Your task to perform on an android device: stop showing notifications on the lock screen Image 0: 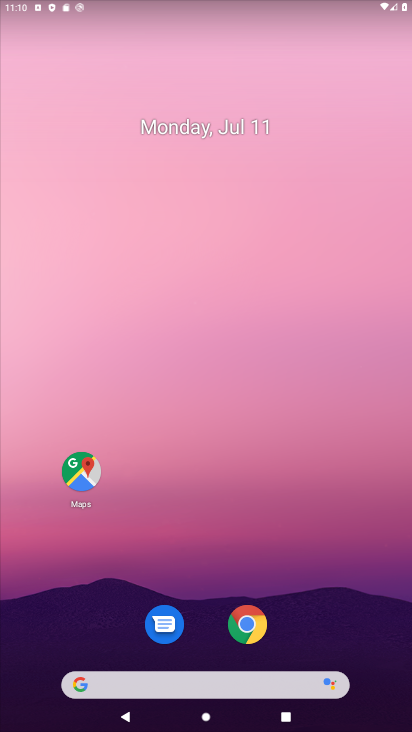
Step 0: drag from (201, 617) to (244, 179)
Your task to perform on an android device: stop showing notifications on the lock screen Image 1: 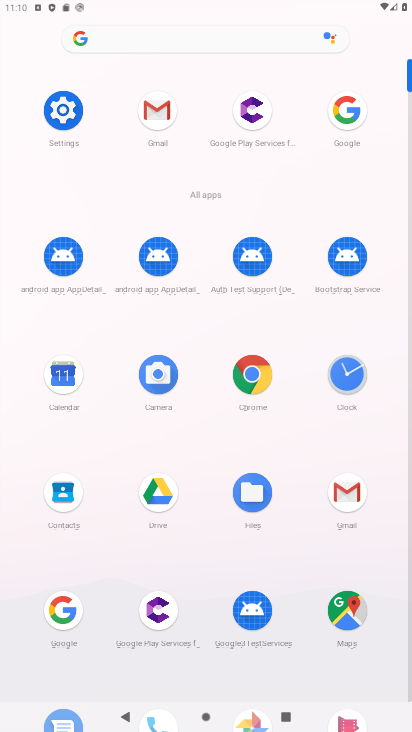
Step 1: click (63, 116)
Your task to perform on an android device: stop showing notifications on the lock screen Image 2: 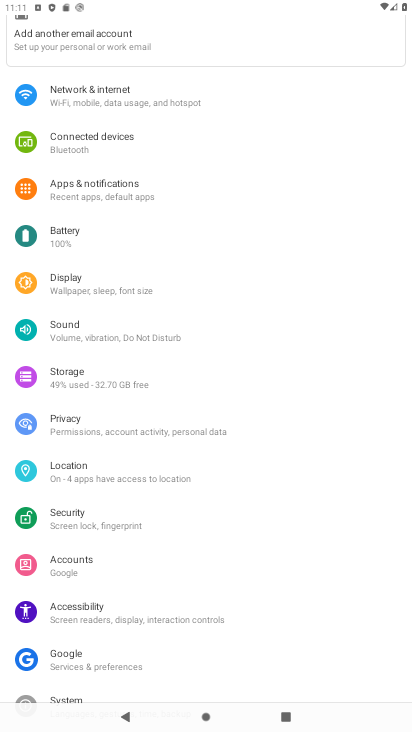
Step 2: click (173, 197)
Your task to perform on an android device: stop showing notifications on the lock screen Image 3: 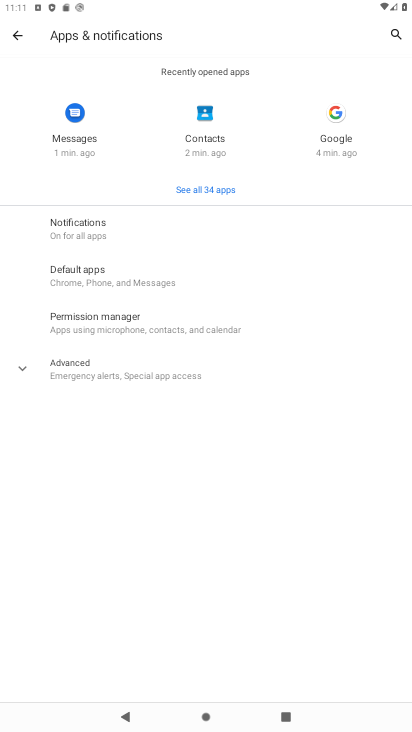
Step 3: click (114, 242)
Your task to perform on an android device: stop showing notifications on the lock screen Image 4: 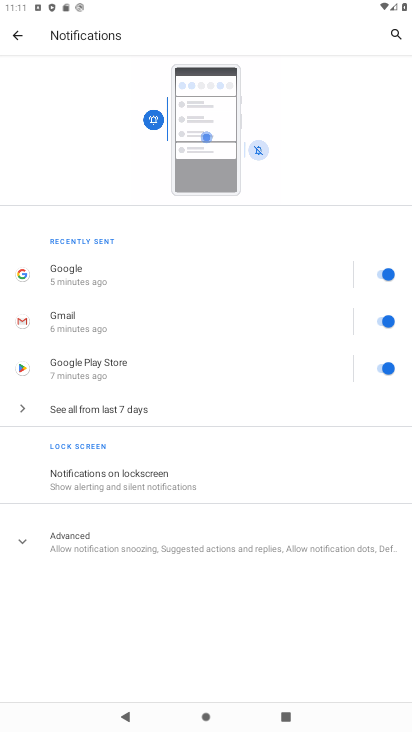
Step 4: click (197, 483)
Your task to perform on an android device: stop showing notifications on the lock screen Image 5: 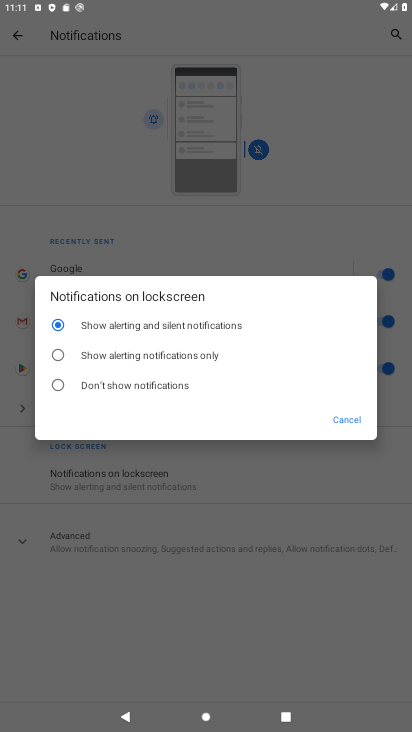
Step 5: click (161, 380)
Your task to perform on an android device: stop showing notifications on the lock screen Image 6: 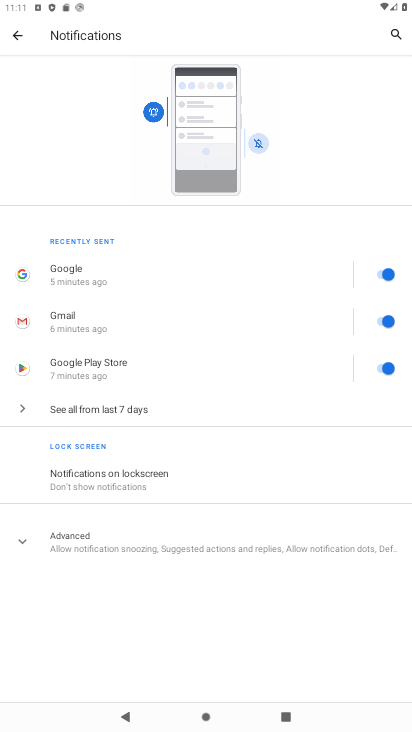
Step 6: task complete